Your task to perform on an android device: check out phone information Image 0: 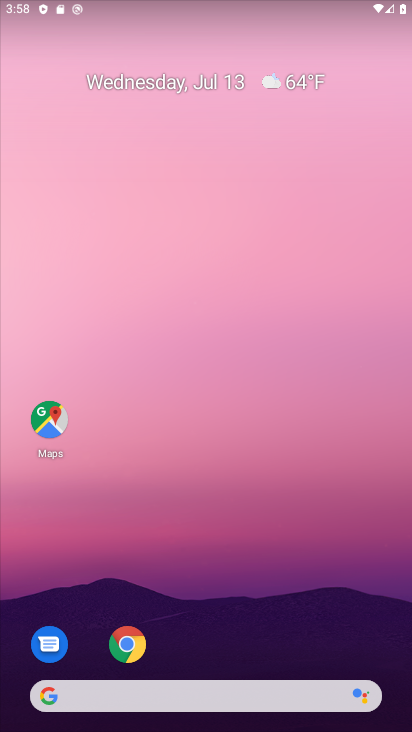
Step 0: drag from (253, 594) to (163, 79)
Your task to perform on an android device: check out phone information Image 1: 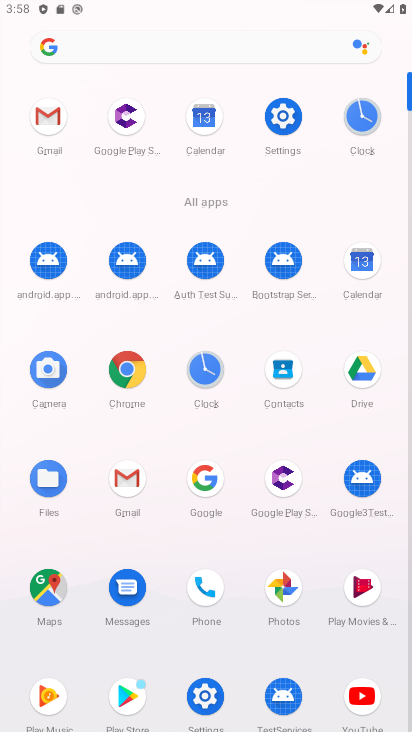
Step 1: click (286, 117)
Your task to perform on an android device: check out phone information Image 2: 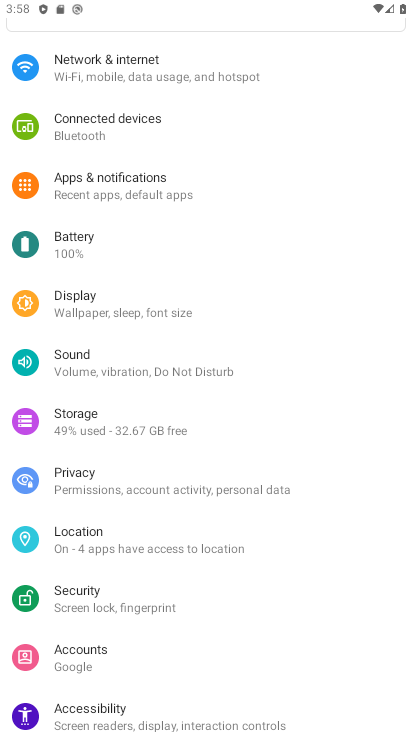
Step 2: drag from (257, 679) to (215, 211)
Your task to perform on an android device: check out phone information Image 3: 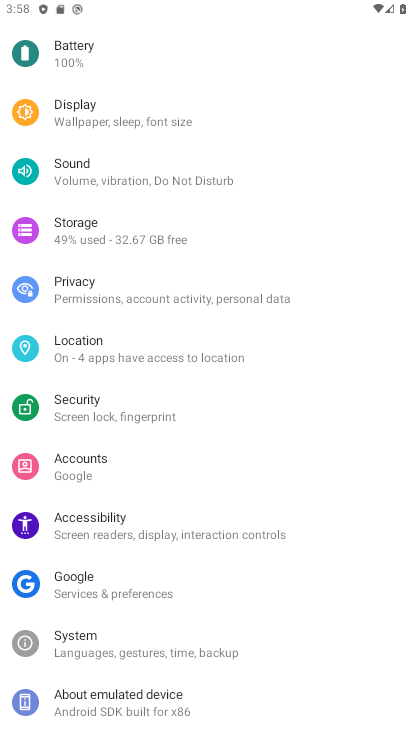
Step 3: click (131, 696)
Your task to perform on an android device: check out phone information Image 4: 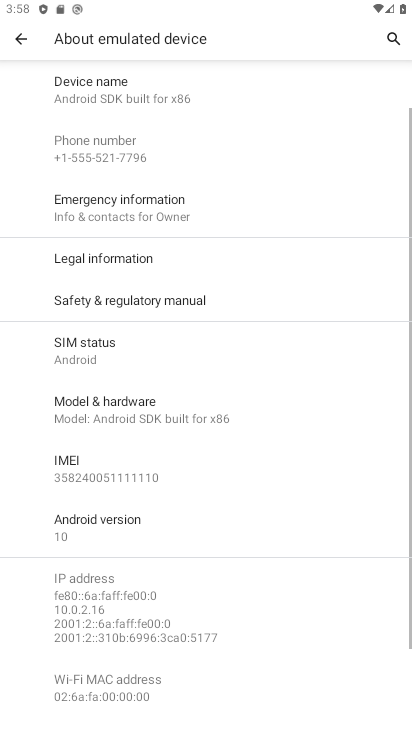
Step 4: task complete